Your task to perform on an android device: Go to eBay Image 0: 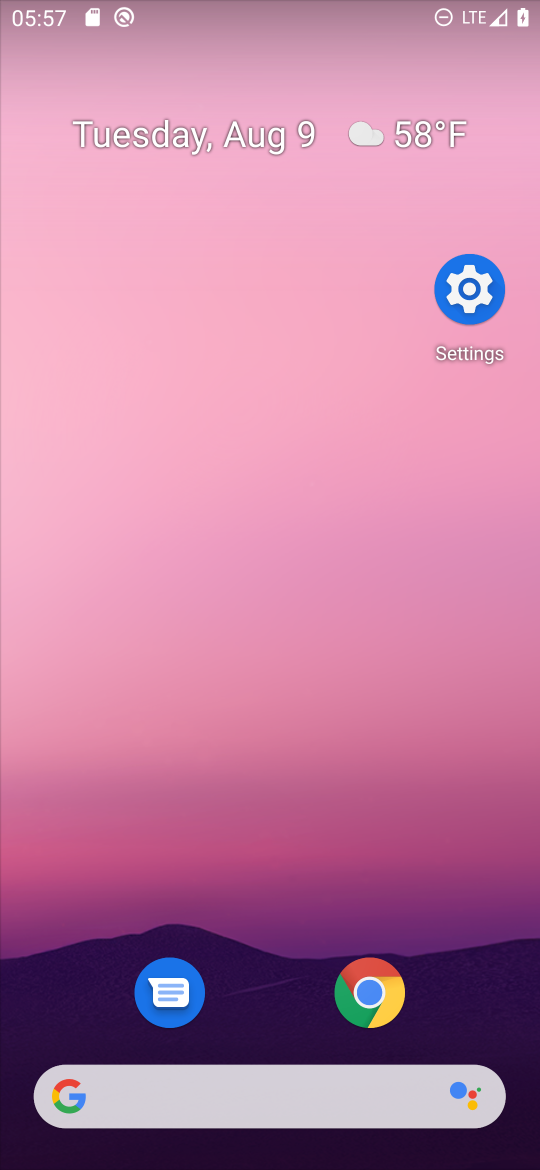
Step 0: drag from (359, 1106) to (36, 59)
Your task to perform on an android device: Go to eBay Image 1: 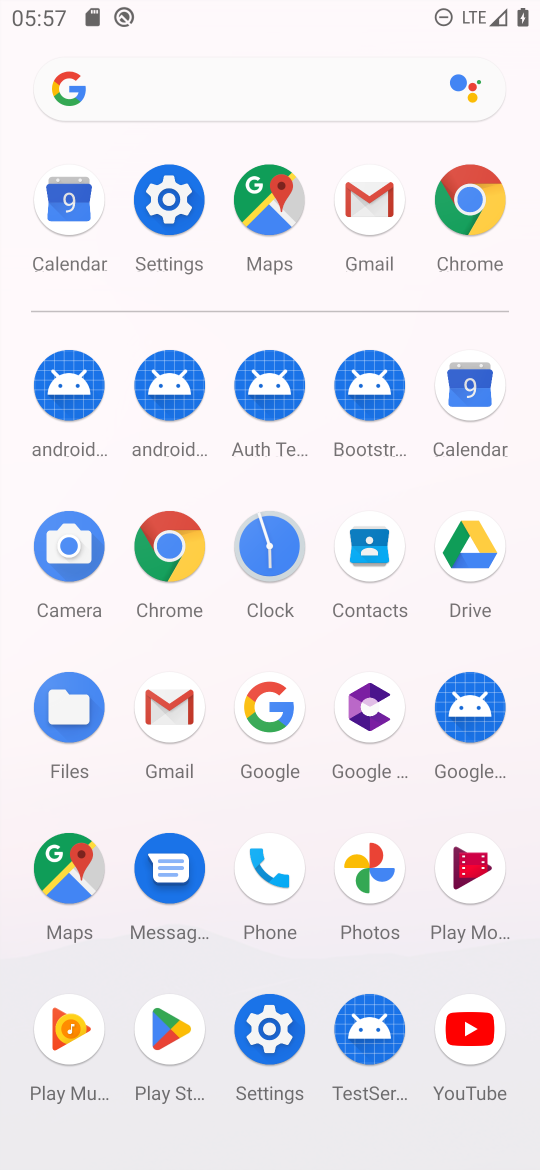
Step 1: click (190, 517)
Your task to perform on an android device: Go to eBay Image 2: 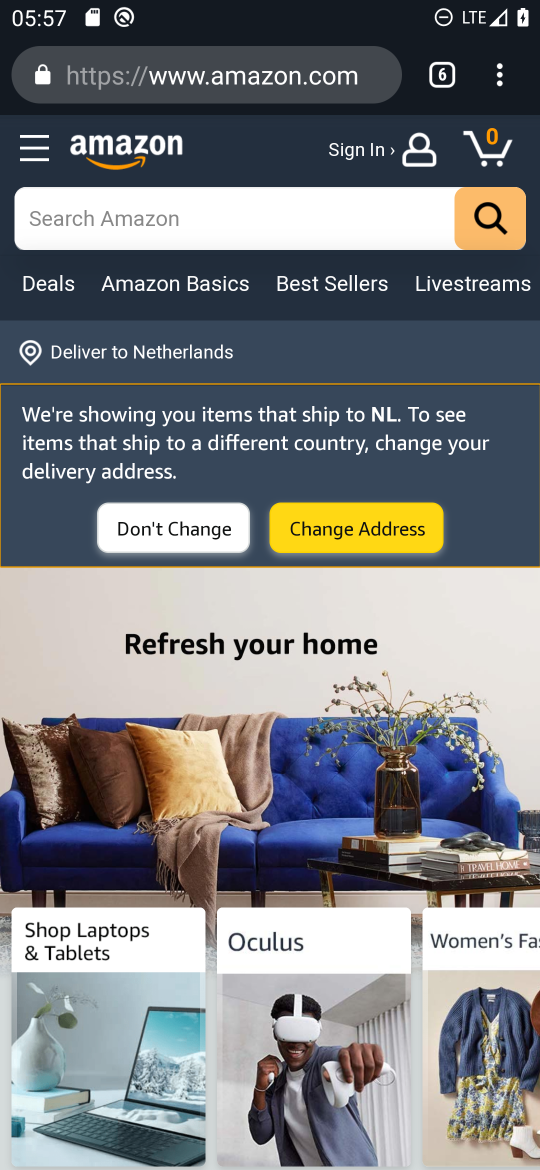
Step 2: click (501, 76)
Your task to perform on an android device: Go to eBay Image 3: 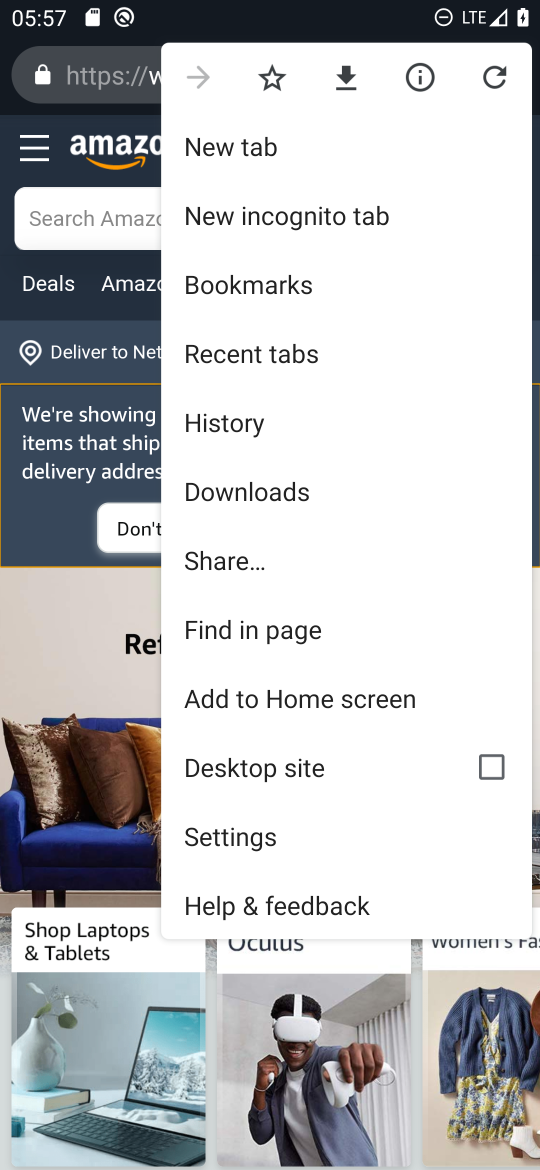
Step 3: click (255, 142)
Your task to perform on an android device: Go to eBay Image 4: 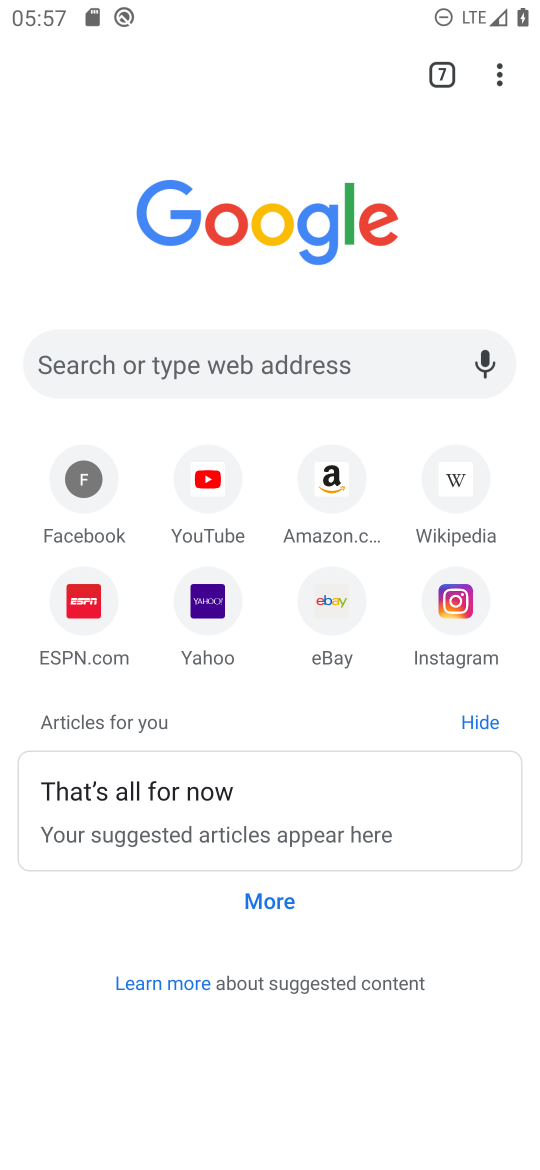
Step 4: click (327, 613)
Your task to perform on an android device: Go to eBay Image 5: 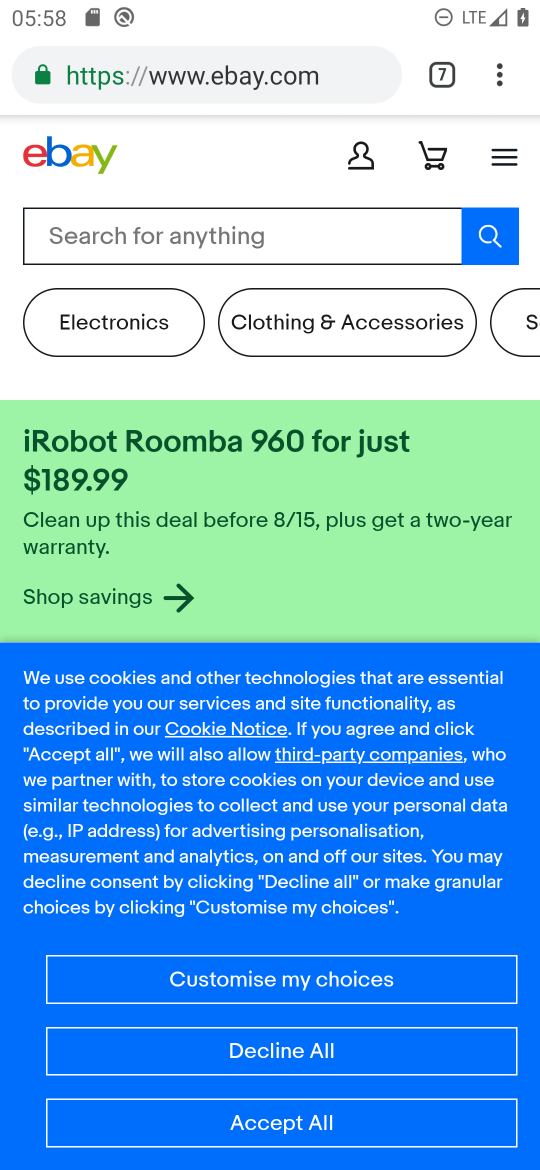
Step 5: task complete